Your task to perform on an android device: Open Wikipedia Image 0: 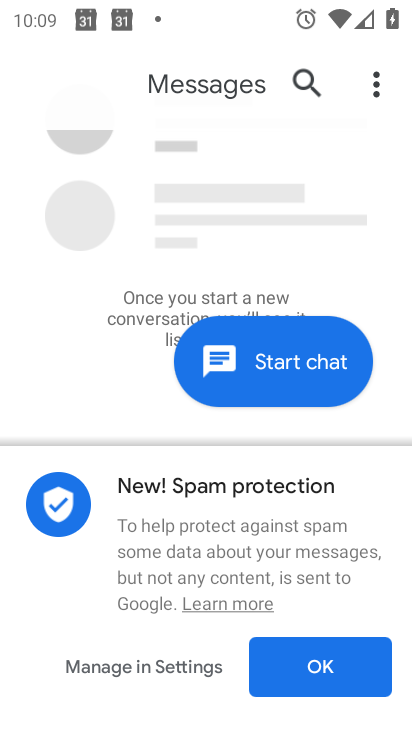
Step 0: press home button
Your task to perform on an android device: Open Wikipedia Image 1: 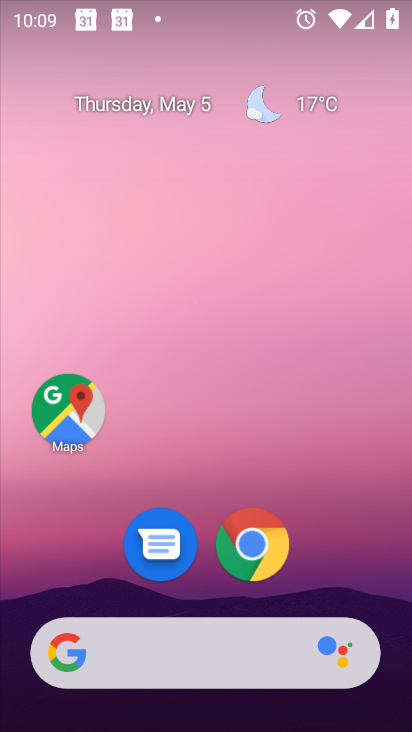
Step 1: click (258, 536)
Your task to perform on an android device: Open Wikipedia Image 2: 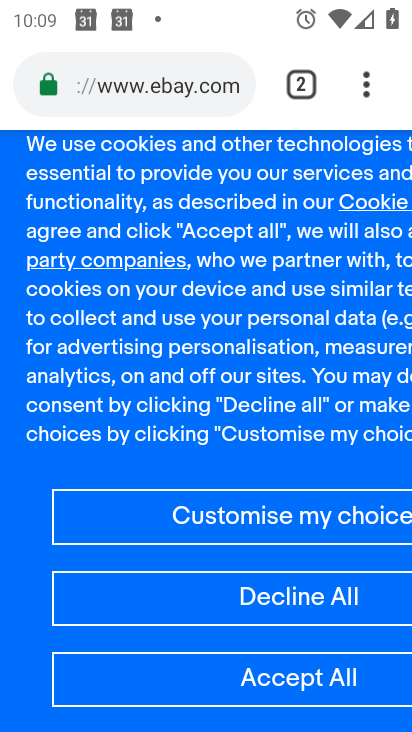
Step 2: click (295, 77)
Your task to perform on an android device: Open Wikipedia Image 3: 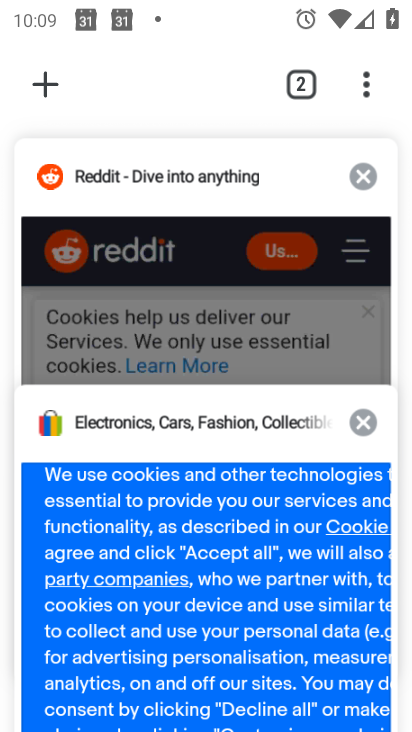
Step 3: click (43, 75)
Your task to perform on an android device: Open Wikipedia Image 4: 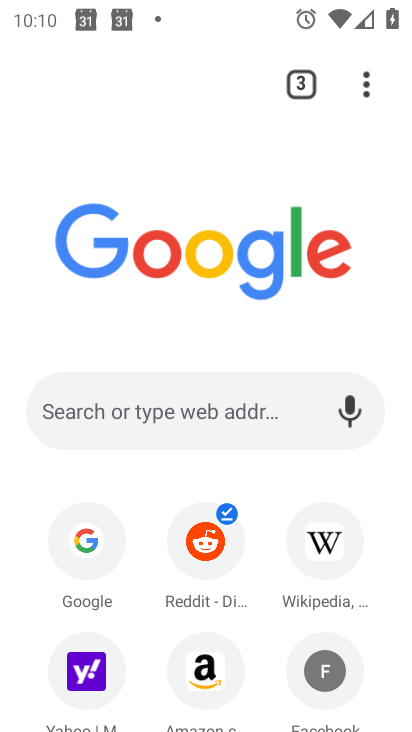
Step 4: click (329, 543)
Your task to perform on an android device: Open Wikipedia Image 5: 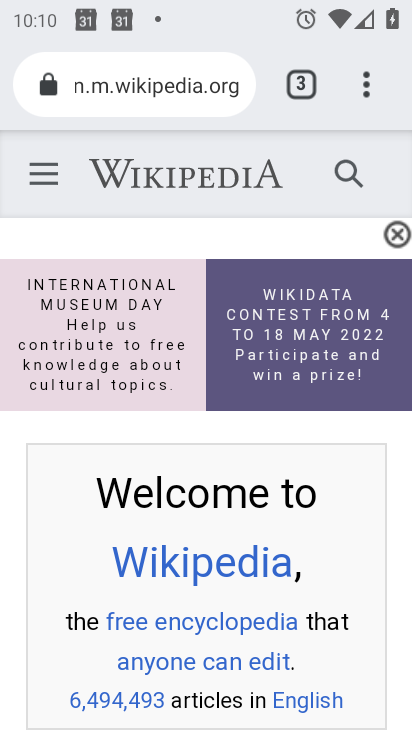
Step 5: task complete